Your task to perform on an android device: show emergency info Image 0: 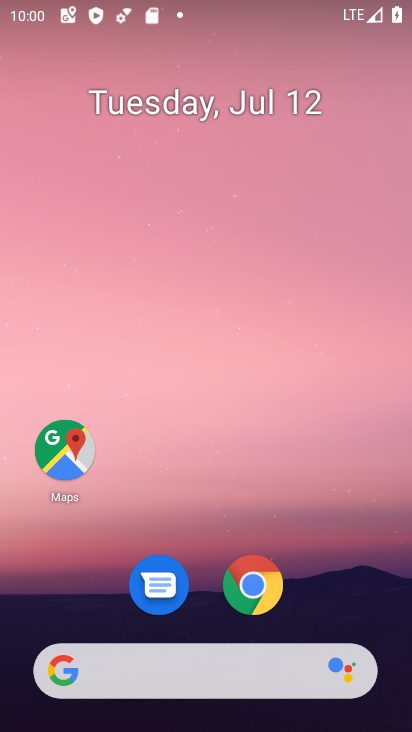
Step 0: drag from (210, 665) to (270, 22)
Your task to perform on an android device: show emergency info Image 1: 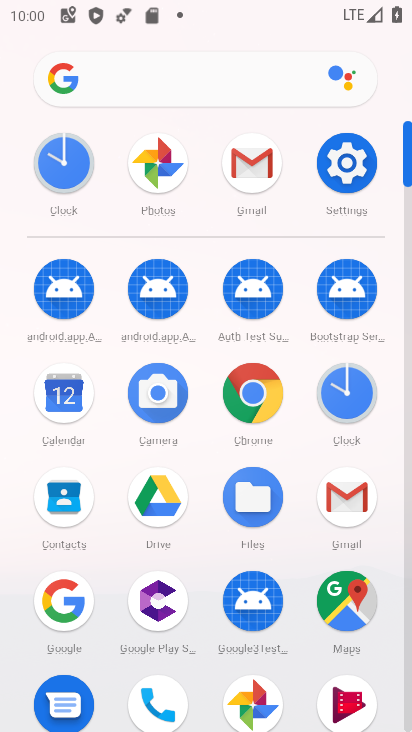
Step 1: click (349, 163)
Your task to perform on an android device: show emergency info Image 2: 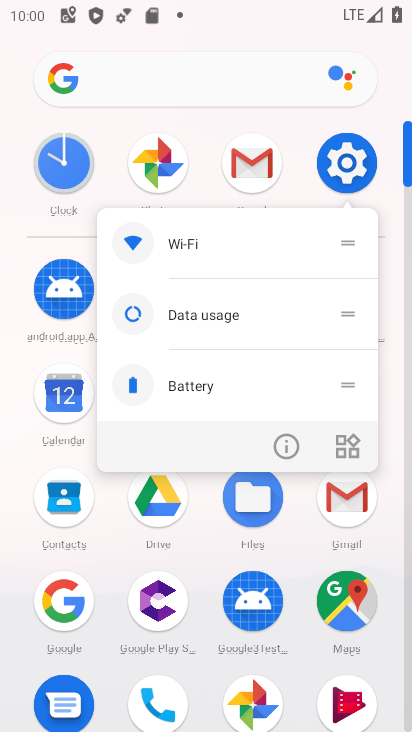
Step 2: click (349, 163)
Your task to perform on an android device: show emergency info Image 3: 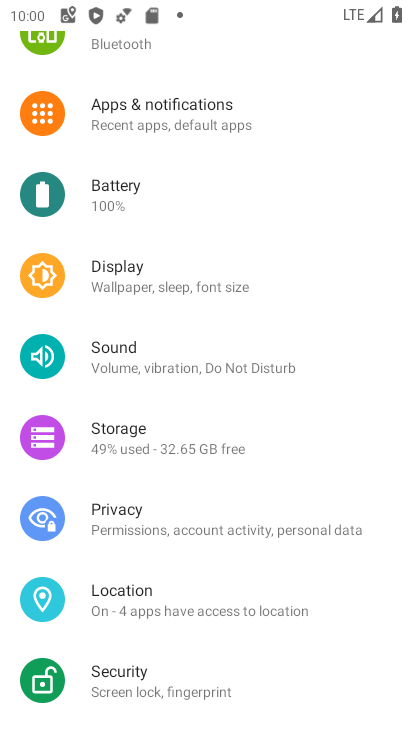
Step 3: drag from (320, 658) to (394, 26)
Your task to perform on an android device: show emergency info Image 4: 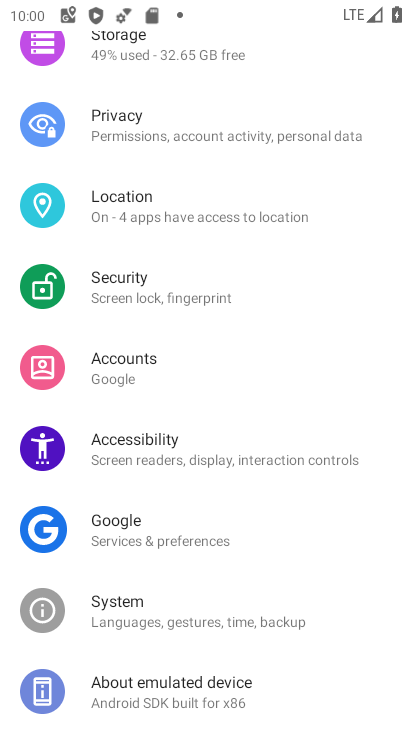
Step 4: click (220, 701)
Your task to perform on an android device: show emergency info Image 5: 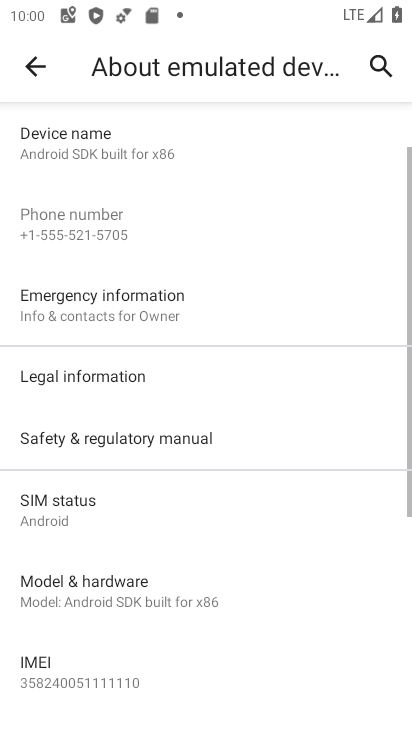
Step 5: click (118, 305)
Your task to perform on an android device: show emergency info Image 6: 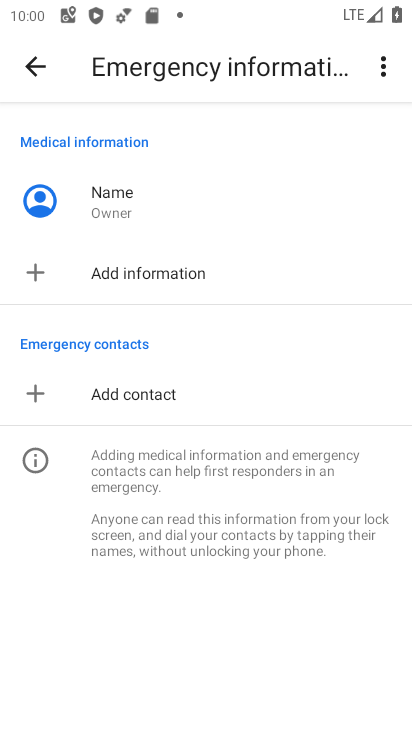
Step 6: task complete